Your task to perform on an android device: Search for seafood restaurants on Google Maps Image 0: 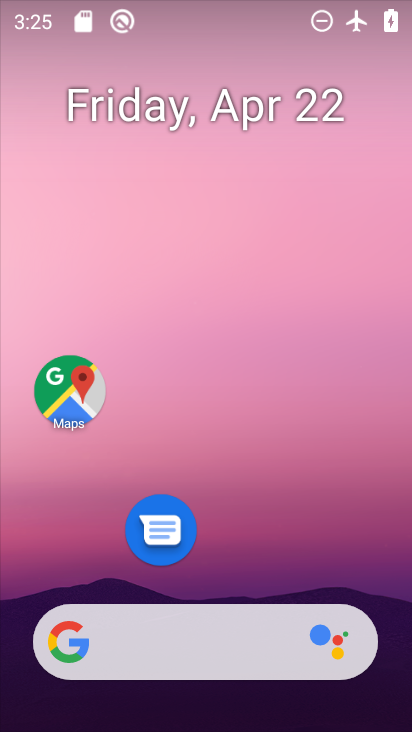
Step 0: click (65, 395)
Your task to perform on an android device: Search for seafood restaurants on Google Maps Image 1: 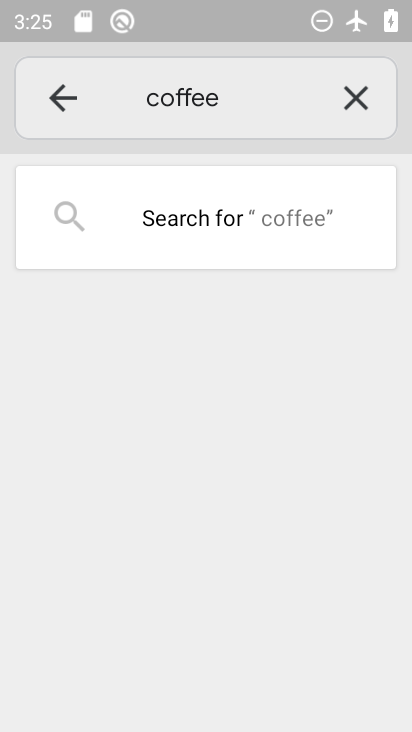
Step 1: click (357, 97)
Your task to perform on an android device: Search for seafood restaurants on Google Maps Image 2: 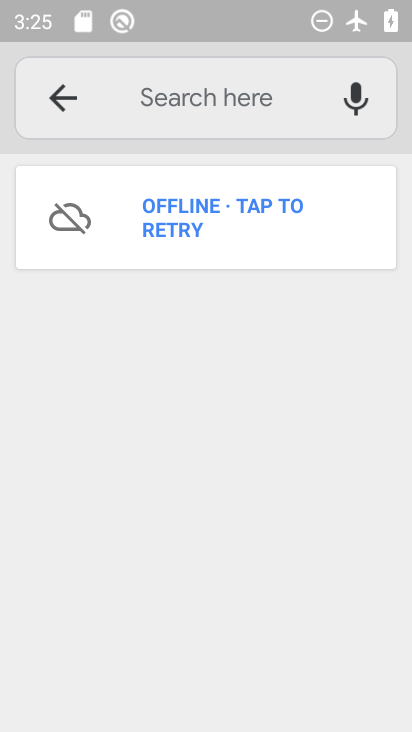
Step 2: click (197, 101)
Your task to perform on an android device: Search for seafood restaurants on Google Maps Image 3: 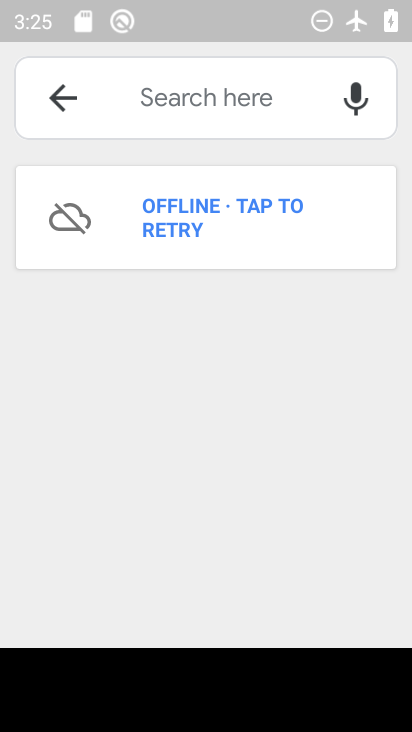
Step 3: type "seafood restaurants"
Your task to perform on an android device: Search for seafood restaurants on Google Maps Image 4: 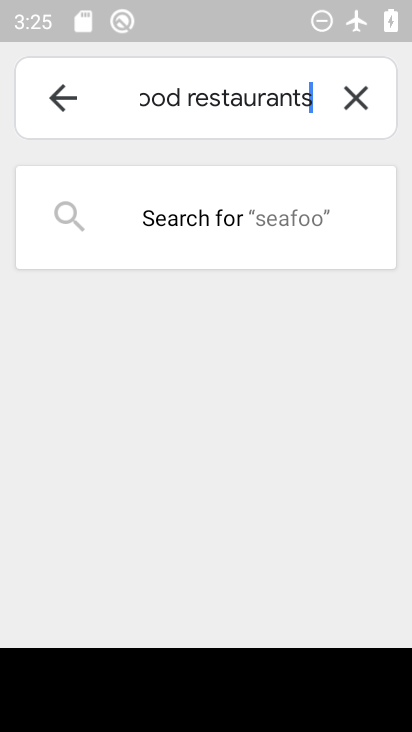
Step 4: type ""
Your task to perform on an android device: Search for seafood restaurants on Google Maps Image 5: 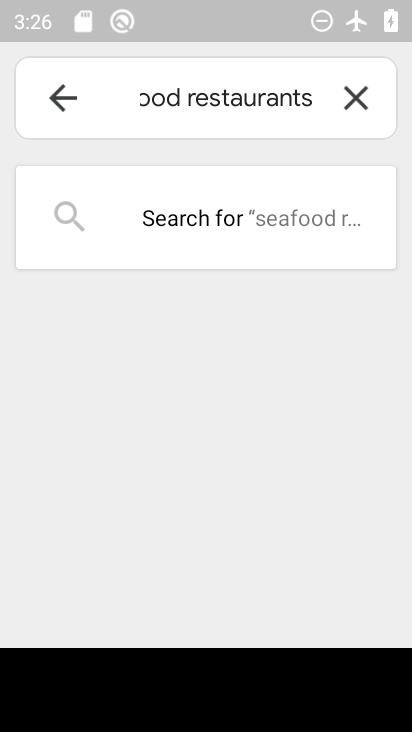
Step 5: task complete